Your task to perform on an android device: turn on airplane mode Image 0: 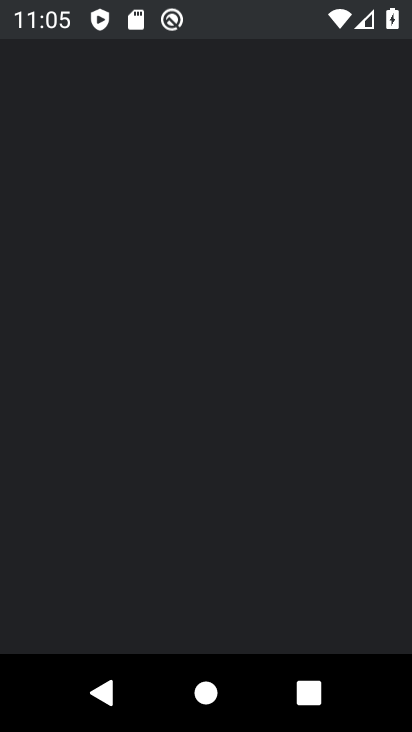
Step 0: click (251, 468)
Your task to perform on an android device: turn on airplane mode Image 1: 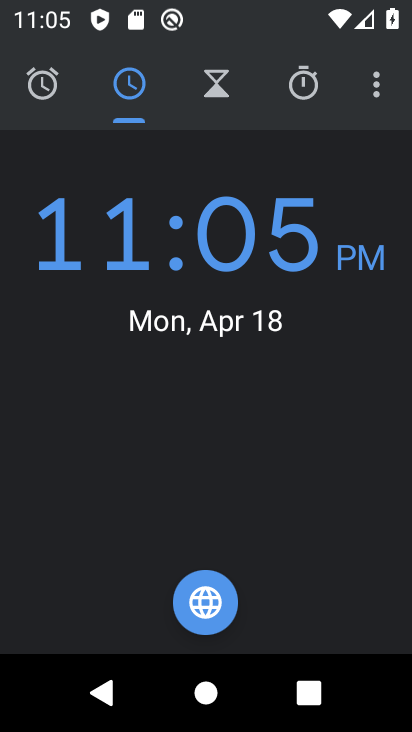
Step 1: press home button
Your task to perform on an android device: turn on airplane mode Image 2: 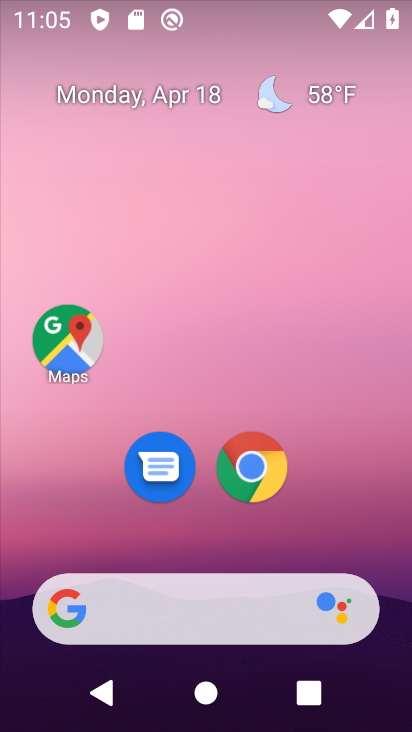
Step 2: click (231, 37)
Your task to perform on an android device: turn on airplane mode Image 3: 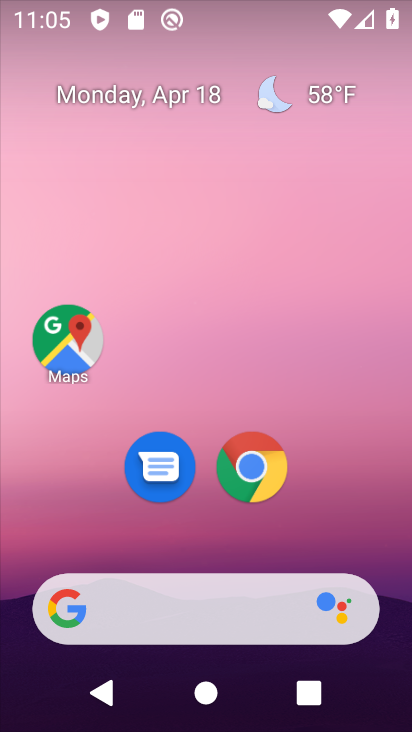
Step 3: drag from (214, 537) to (190, 57)
Your task to perform on an android device: turn on airplane mode Image 4: 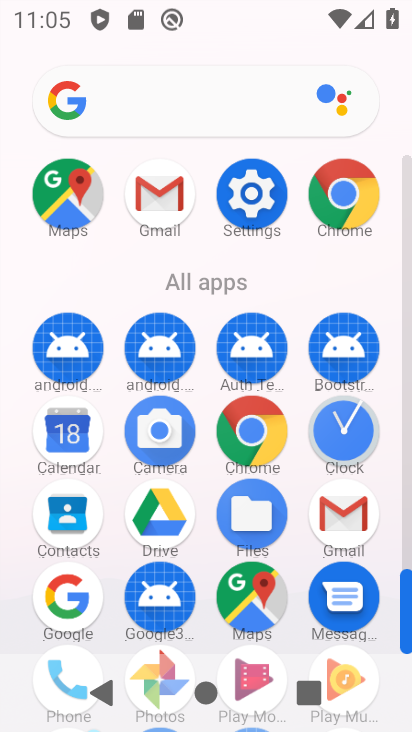
Step 4: click (264, 200)
Your task to perform on an android device: turn on airplane mode Image 5: 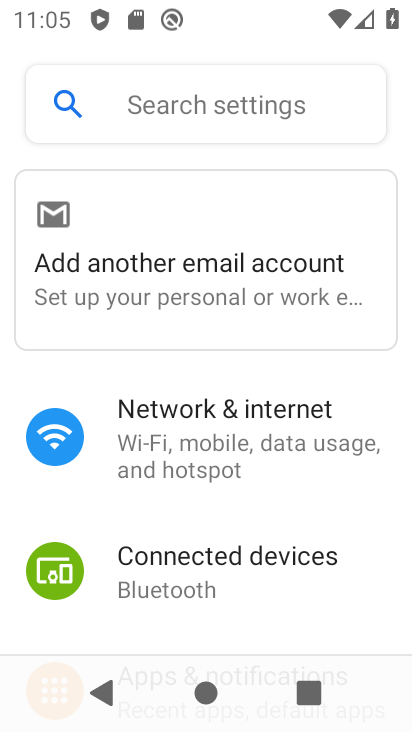
Step 5: click (252, 434)
Your task to perform on an android device: turn on airplane mode Image 6: 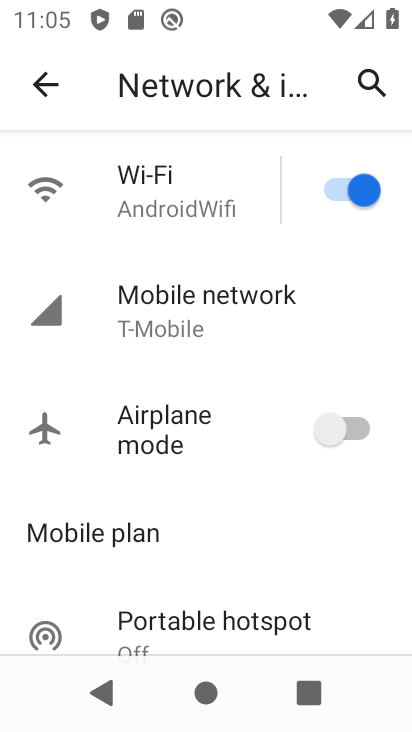
Step 6: click (339, 423)
Your task to perform on an android device: turn on airplane mode Image 7: 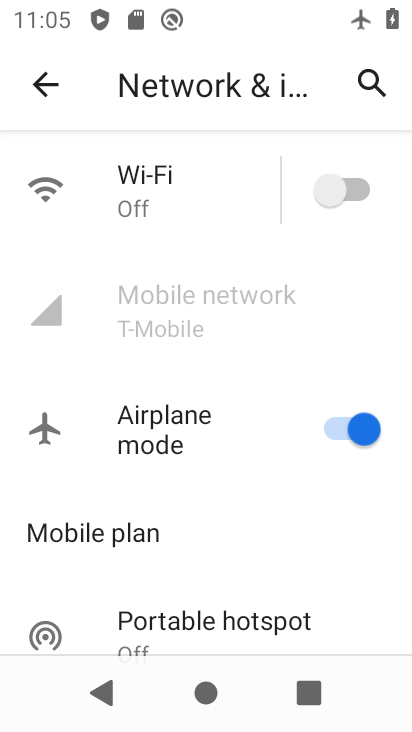
Step 7: task complete